Your task to perform on an android device: What's the weather going to be tomorrow? Image 0: 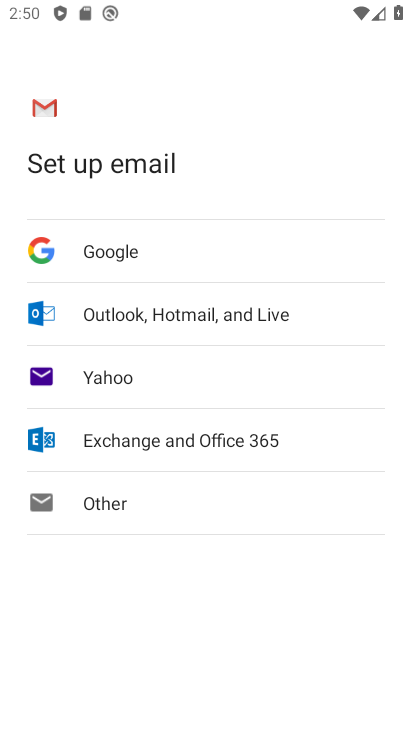
Step 0: press home button
Your task to perform on an android device: What's the weather going to be tomorrow? Image 1: 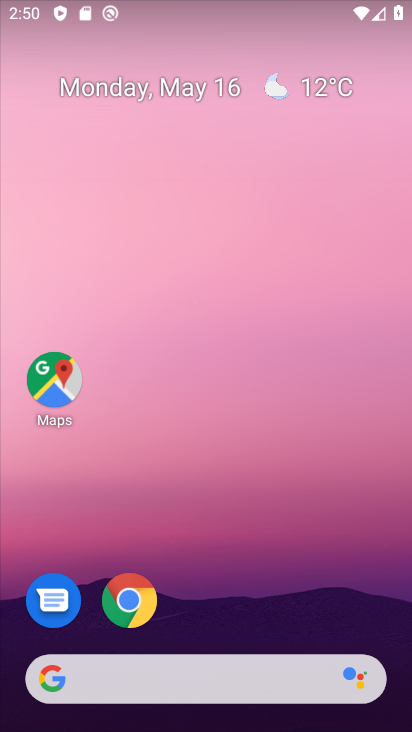
Step 1: click (213, 689)
Your task to perform on an android device: What's the weather going to be tomorrow? Image 2: 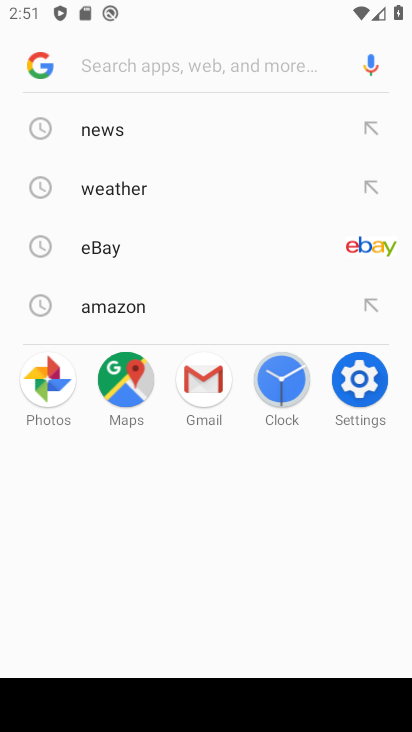
Step 2: click (116, 194)
Your task to perform on an android device: What's the weather going to be tomorrow? Image 3: 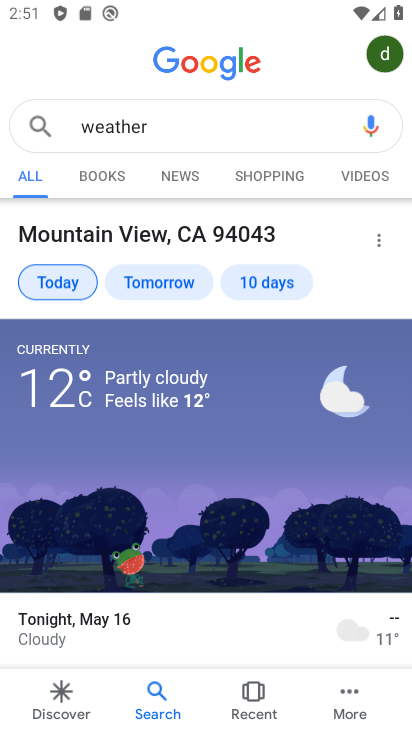
Step 3: task complete